Your task to perform on an android device: set an alarm Image 0: 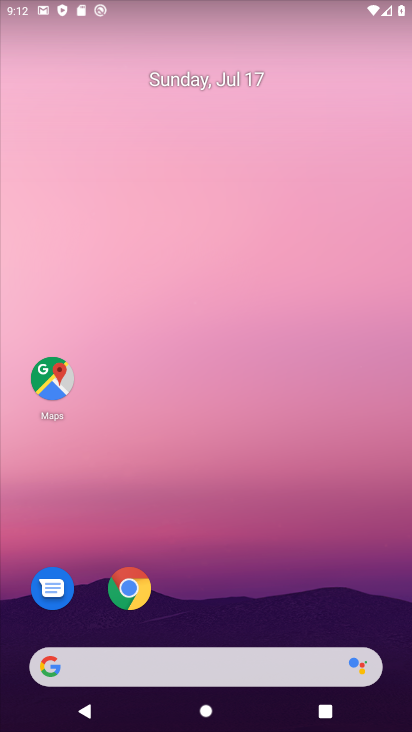
Step 0: drag from (264, 714) to (250, 280)
Your task to perform on an android device: set an alarm Image 1: 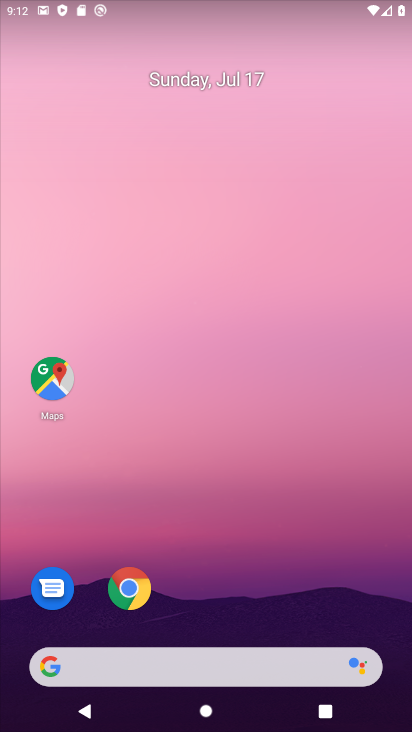
Step 1: drag from (180, 539) to (181, 75)
Your task to perform on an android device: set an alarm Image 2: 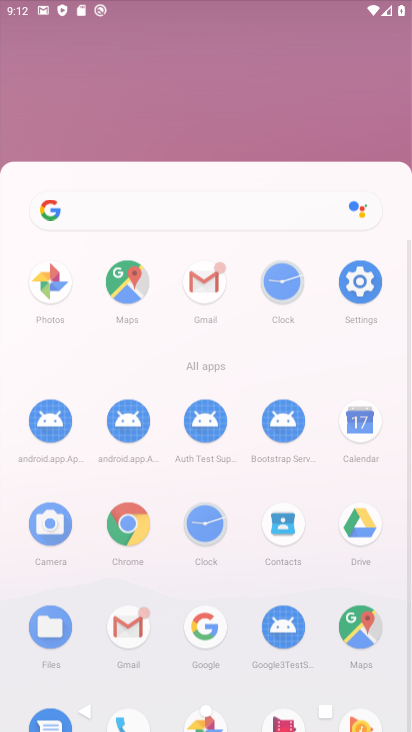
Step 2: drag from (249, 640) to (227, 139)
Your task to perform on an android device: set an alarm Image 3: 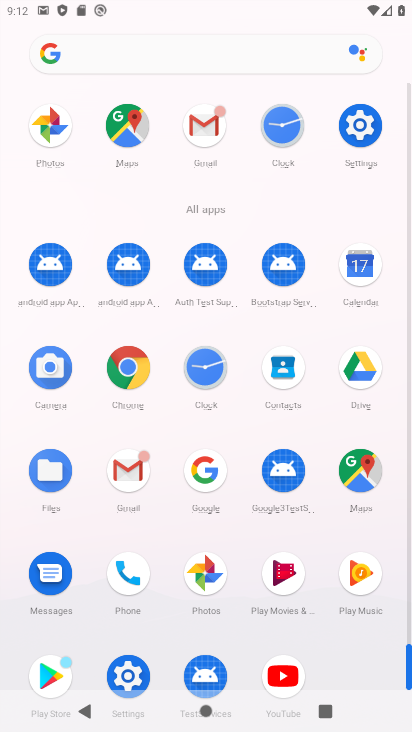
Step 3: click (212, 380)
Your task to perform on an android device: set an alarm Image 4: 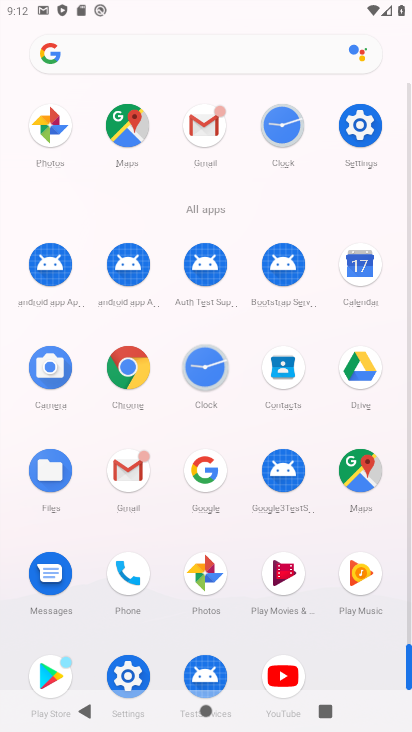
Step 4: click (212, 379)
Your task to perform on an android device: set an alarm Image 5: 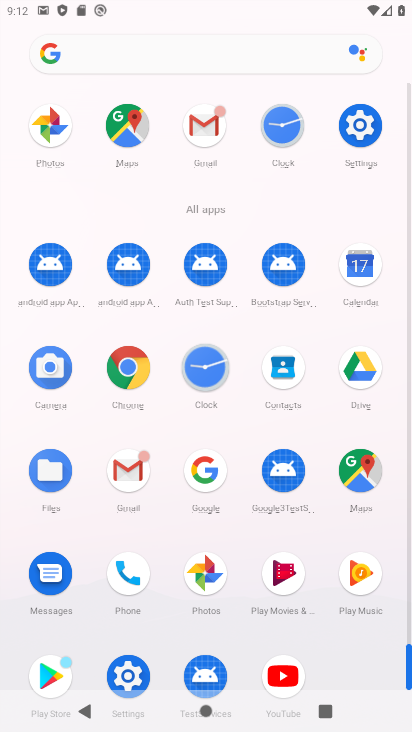
Step 5: click (212, 379)
Your task to perform on an android device: set an alarm Image 6: 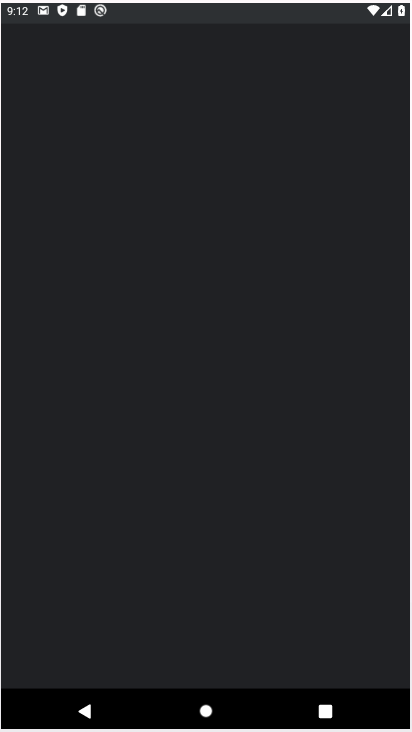
Step 6: click (213, 378)
Your task to perform on an android device: set an alarm Image 7: 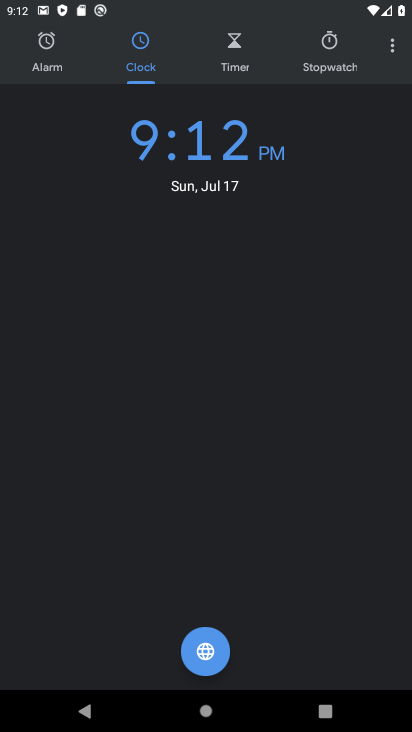
Step 7: click (48, 58)
Your task to perform on an android device: set an alarm Image 8: 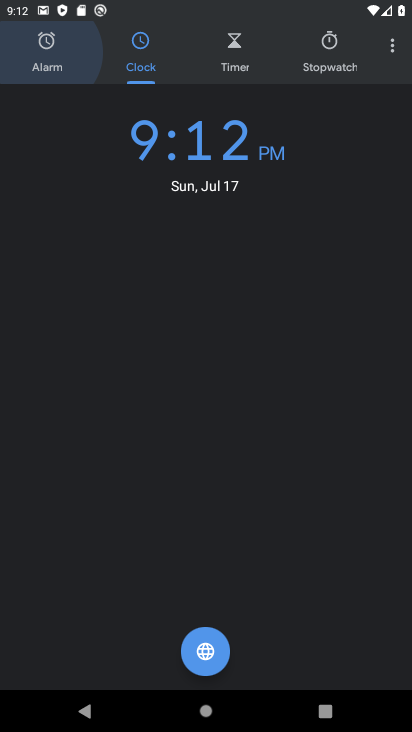
Step 8: click (56, 64)
Your task to perform on an android device: set an alarm Image 9: 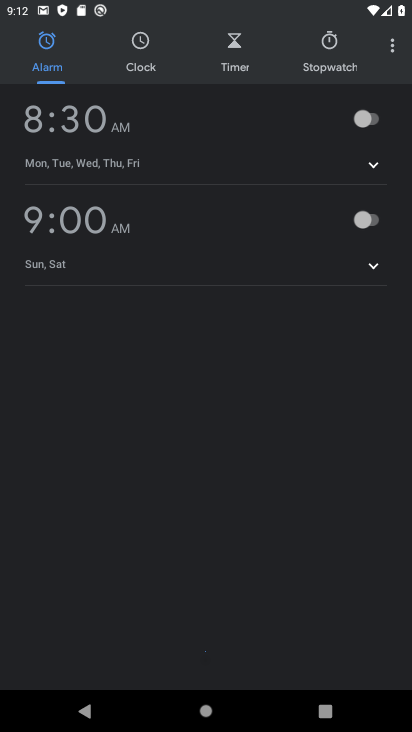
Step 9: click (57, 64)
Your task to perform on an android device: set an alarm Image 10: 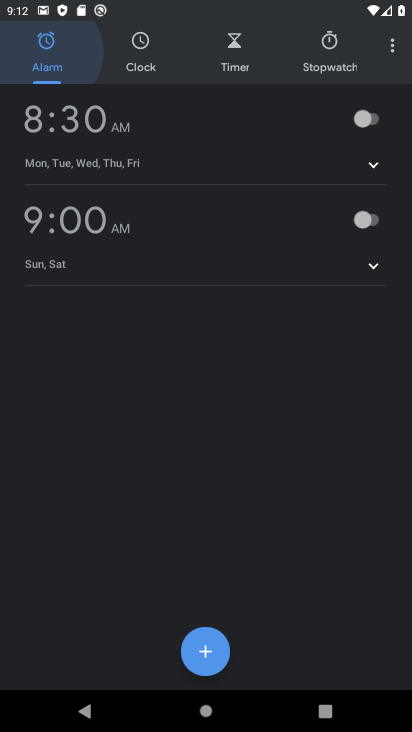
Step 10: click (57, 64)
Your task to perform on an android device: set an alarm Image 11: 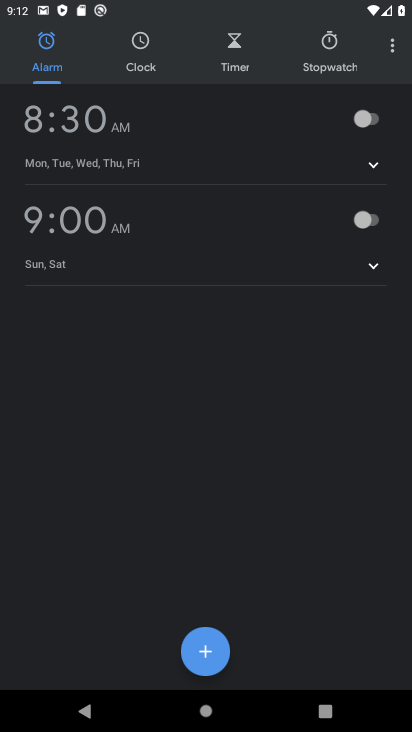
Step 11: click (367, 113)
Your task to perform on an android device: set an alarm Image 12: 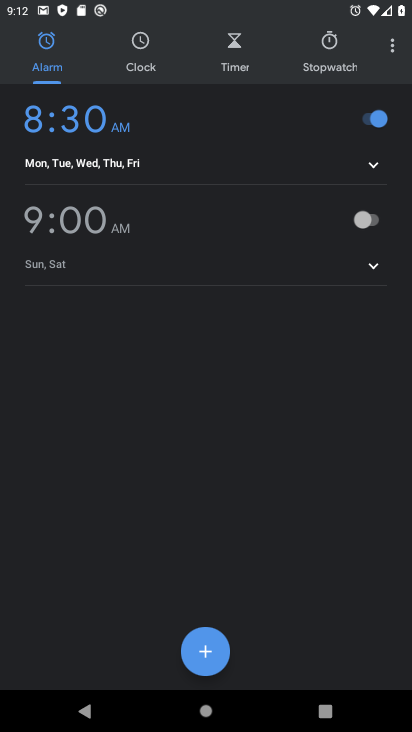
Step 12: task complete